Your task to perform on an android device: turn on priority inbox in the gmail app Image 0: 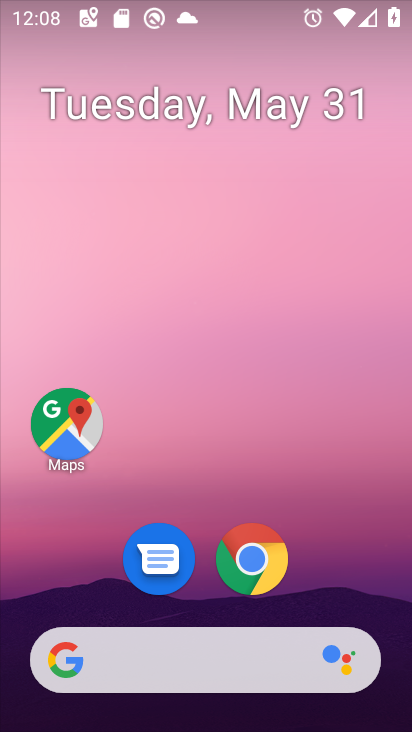
Step 0: drag from (391, 628) to (340, 169)
Your task to perform on an android device: turn on priority inbox in the gmail app Image 1: 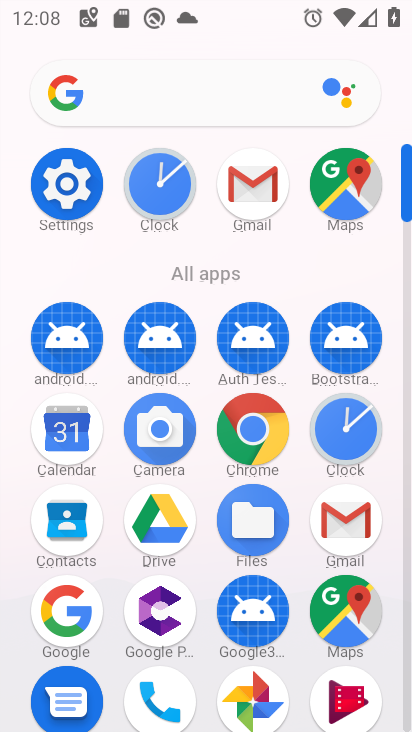
Step 1: click (337, 523)
Your task to perform on an android device: turn on priority inbox in the gmail app Image 2: 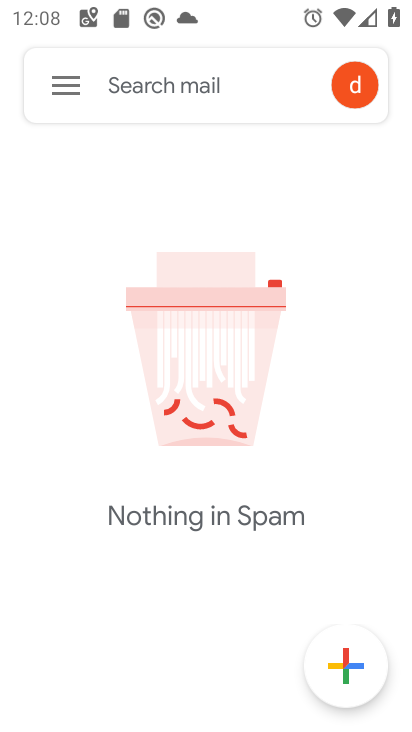
Step 2: click (57, 102)
Your task to perform on an android device: turn on priority inbox in the gmail app Image 3: 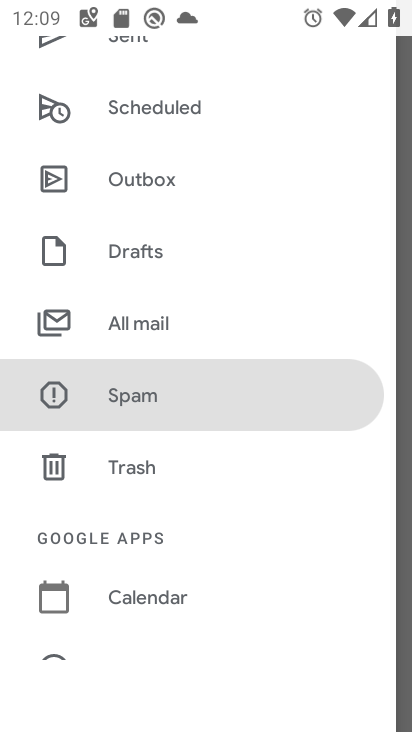
Step 3: drag from (198, 601) to (178, 303)
Your task to perform on an android device: turn on priority inbox in the gmail app Image 4: 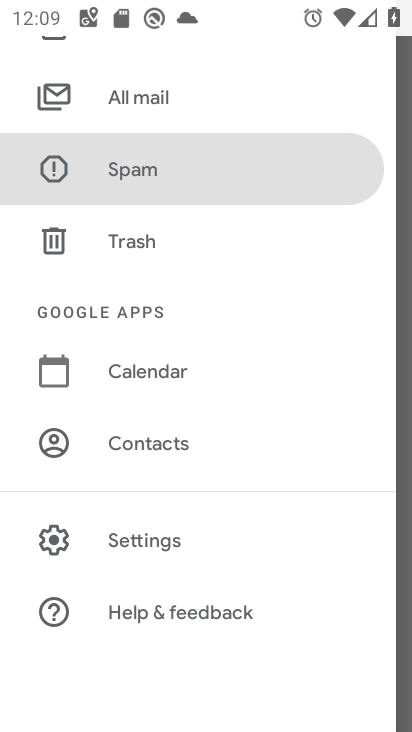
Step 4: click (198, 539)
Your task to perform on an android device: turn on priority inbox in the gmail app Image 5: 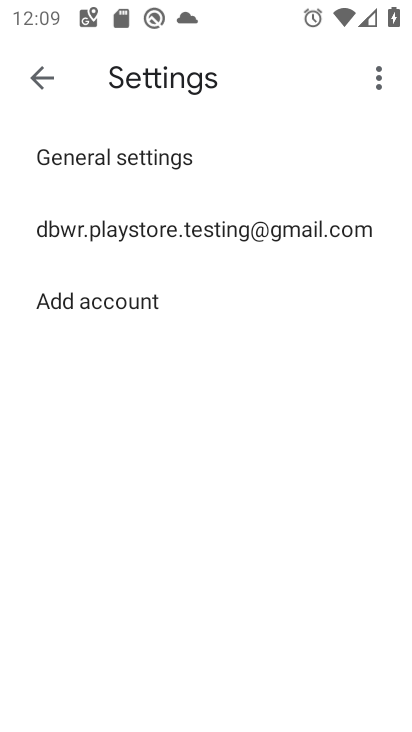
Step 5: click (224, 243)
Your task to perform on an android device: turn on priority inbox in the gmail app Image 6: 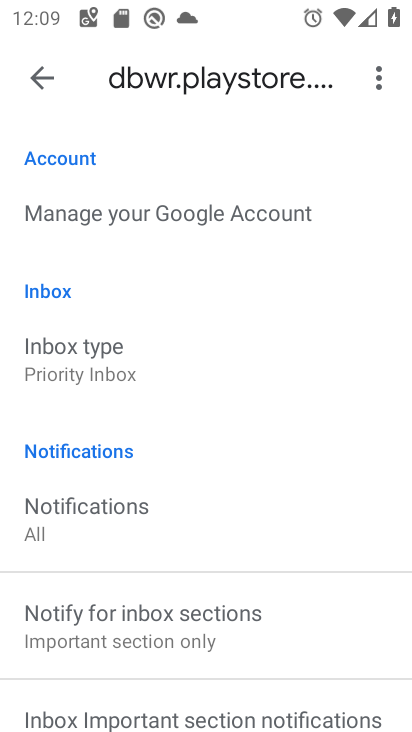
Step 6: task complete